Your task to perform on an android device: Open Android settings Image 0: 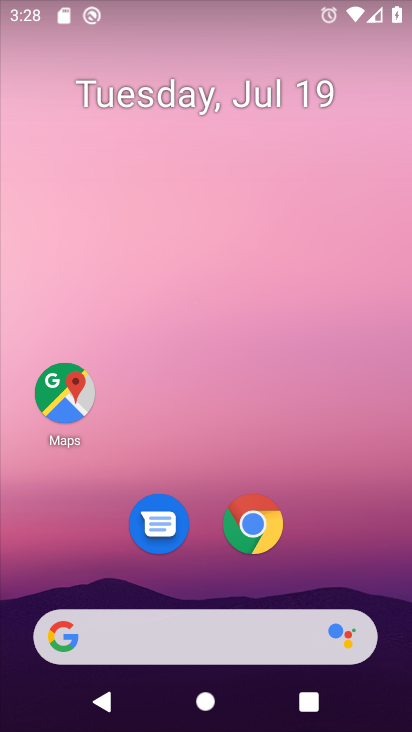
Step 0: drag from (340, 542) to (338, 6)
Your task to perform on an android device: Open Android settings Image 1: 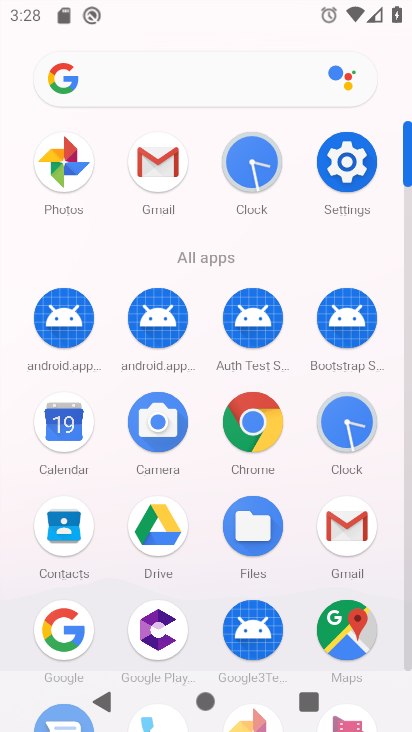
Step 1: click (342, 154)
Your task to perform on an android device: Open Android settings Image 2: 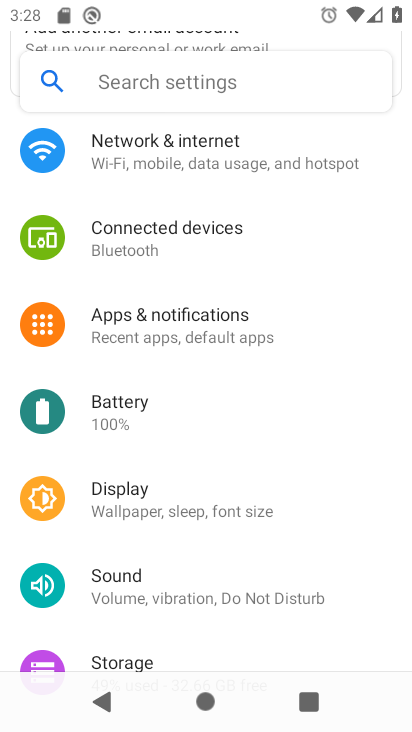
Step 2: drag from (239, 547) to (332, 66)
Your task to perform on an android device: Open Android settings Image 3: 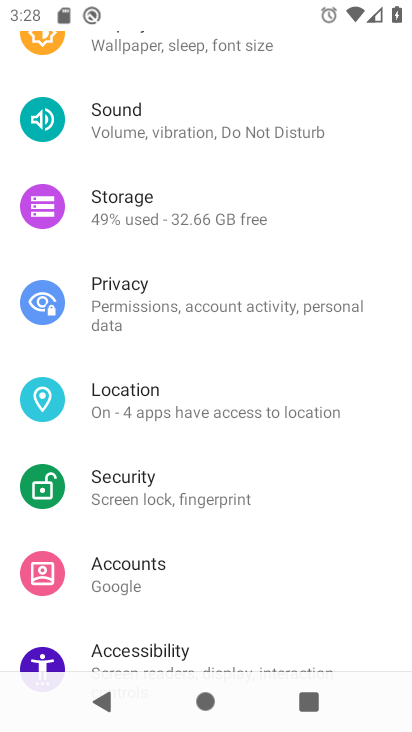
Step 3: drag from (247, 438) to (230, 62)
Your task to perform on an android device: Open Android settings Image 4: 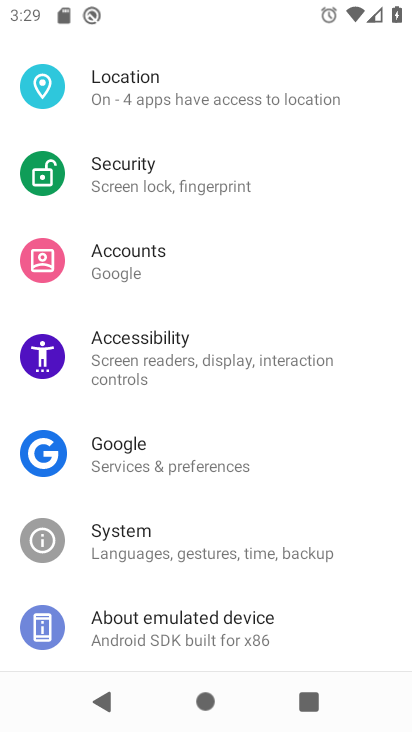
Step 4: click (218, 631)
Your task to perform on an android device: Open Android settings Image 5: 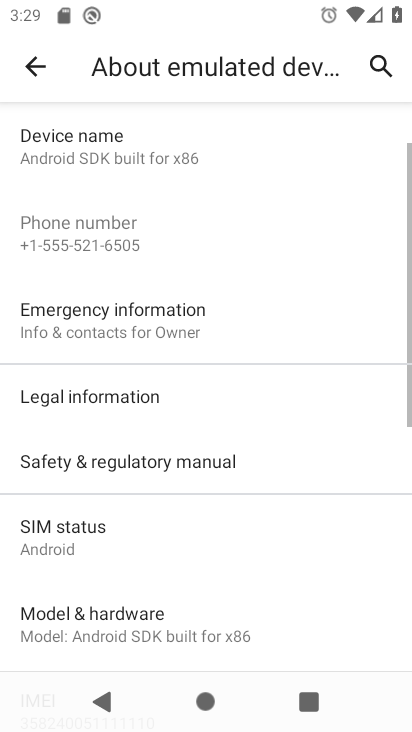
Step 5: task complete